Your task to perform on an android device: open a bookmark in the chrome app Image 0: 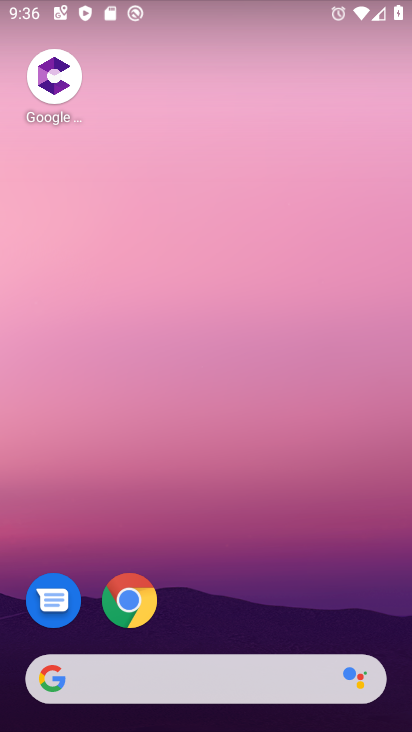
Step 0: click (130, 586)
Your task to perform on an android device: open a bookmark in the chrome app Image 1: 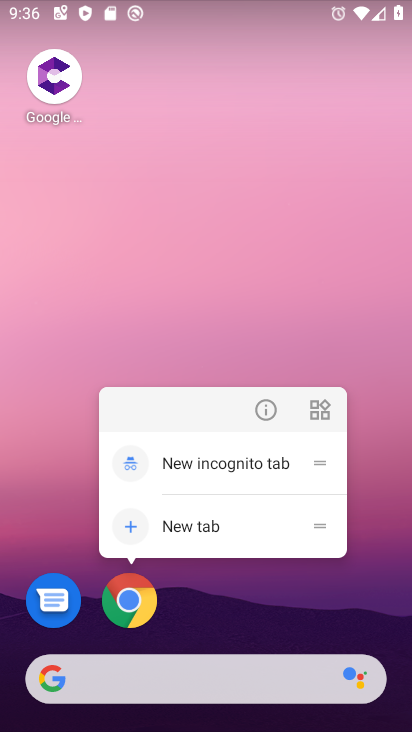
Step 1: click (131, 589)
Your task to perform on an android device: open a bookmark in the chrome app Image 2: 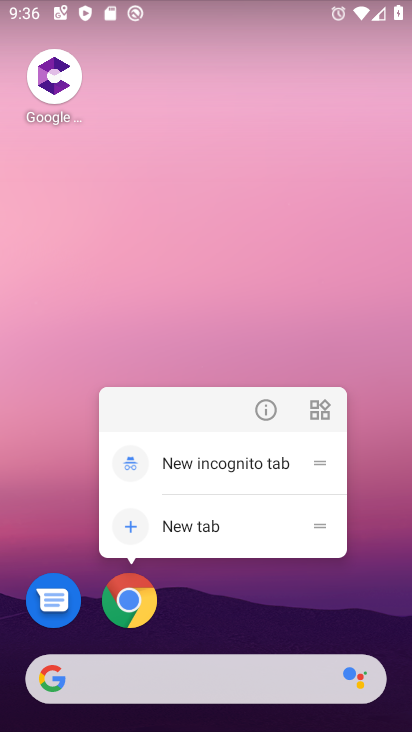
Step 2: click (134, 593)
Your task to perform on an android device: open a bookmark in the chrome app Image 3: 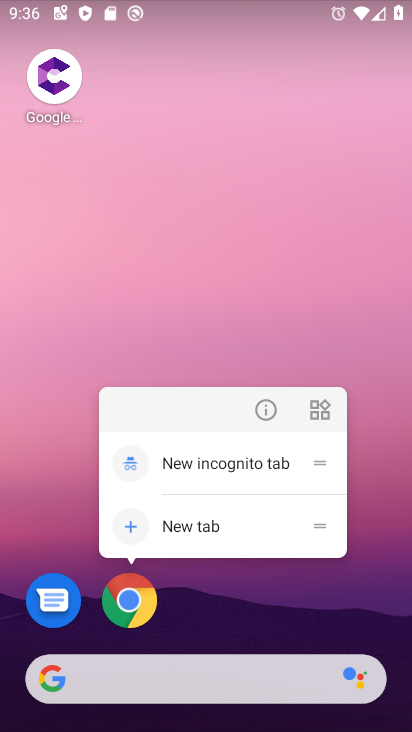
Step 3: click (132, 600)
Your task to perform on an android device: open a bookmark in the chrome app Image 4: 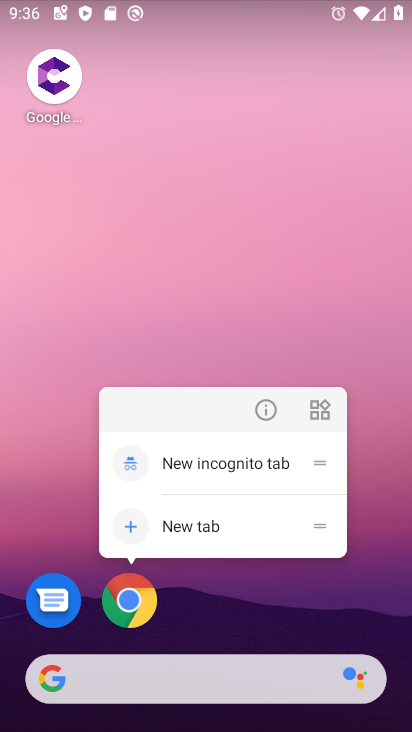
Step 4: click (133, 592)
Your task to perform on an android device: open a bookmark in the chrome app Image 5: 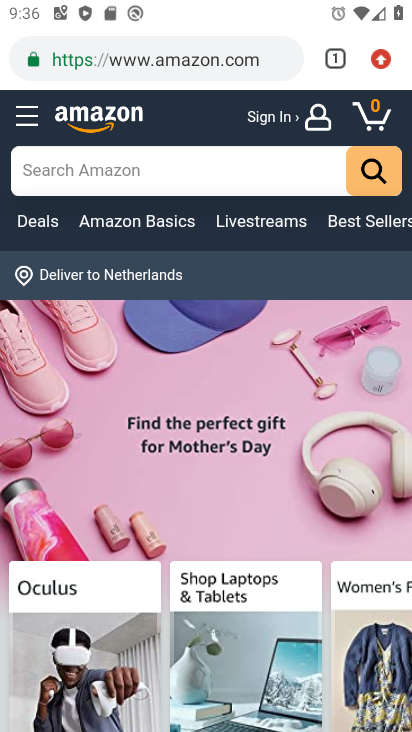
Step 5: click (382, 53)
Your task to perform on an android device: open a bookmark in the chrome app Image 6: 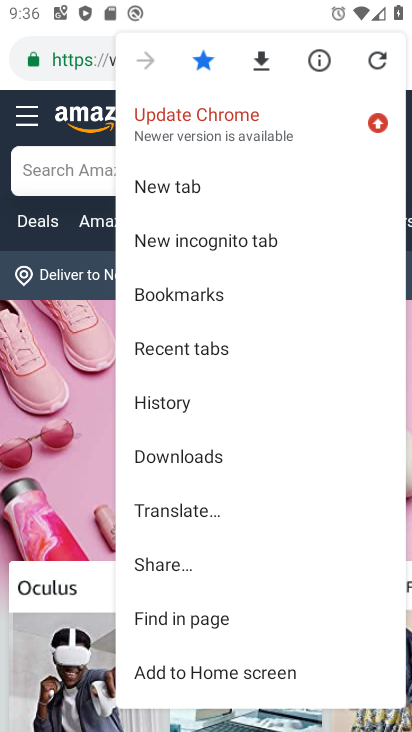
Step 6: click (157, 276)
Your task to perform on an android device: open a bookmark in the chrome app Image 7: 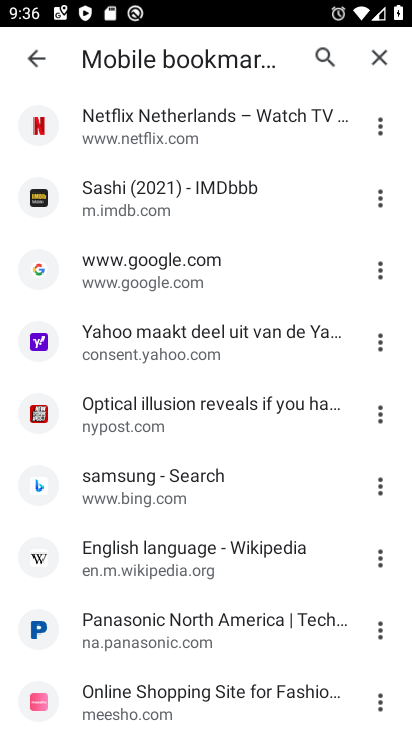
Step 7: task complete